Your task to perform on an android device: turn on the 12-hour format for clock Image 0: 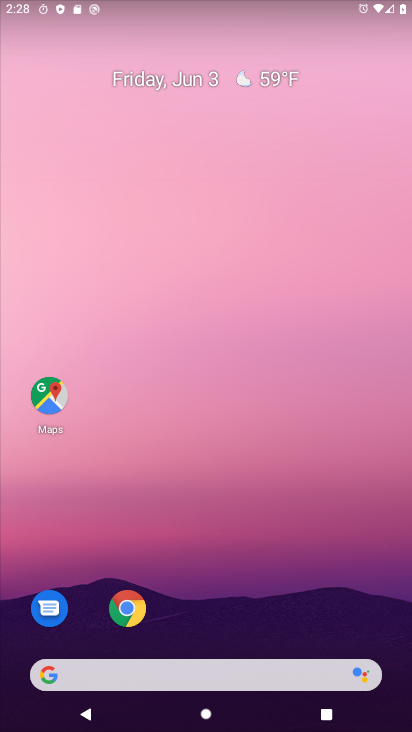
Step 0: drag from (217, 663) to (213, 232)
Your task to perform on an android device: turn on the 12-hour format for clock Image 1: 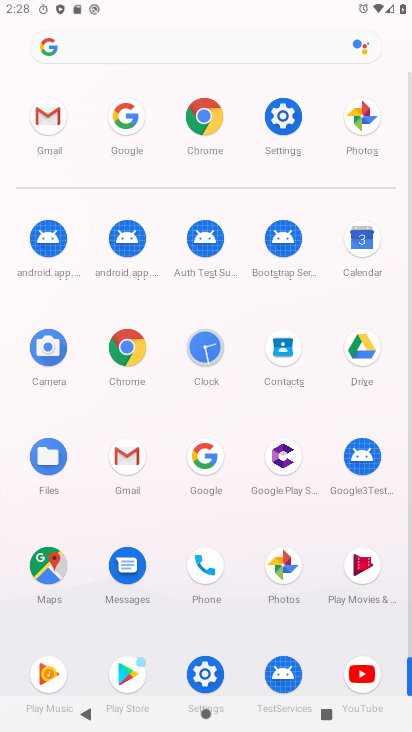
Step 1: click (298, 119)
Your task to perform on an android device: turn on the 12-hour format for clock Image 2: 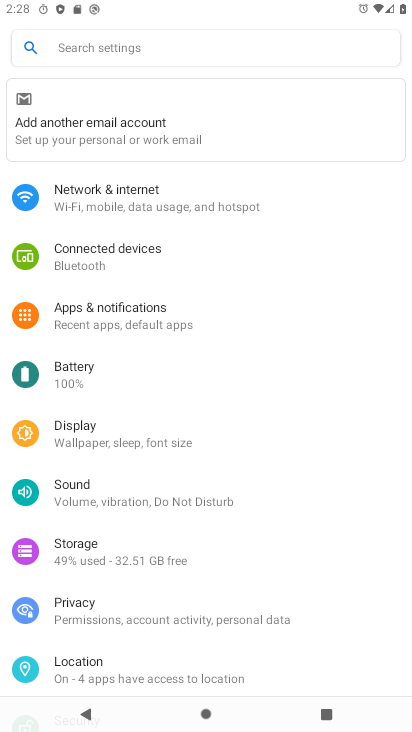
Step 2: drag from (238, 536) to (261, 82)
Your task to perform on an android device: turn on the 12-hour format for clock Image 3: 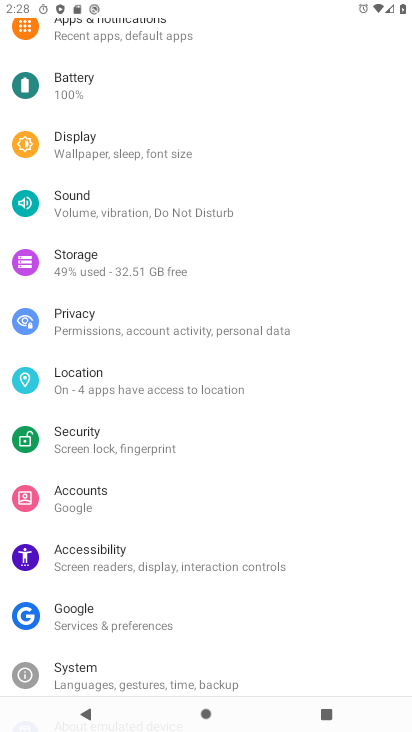
Step 3: click (159, 680)
Your task to perform on an android device: turn on the 12-hour format for clock Image 4: 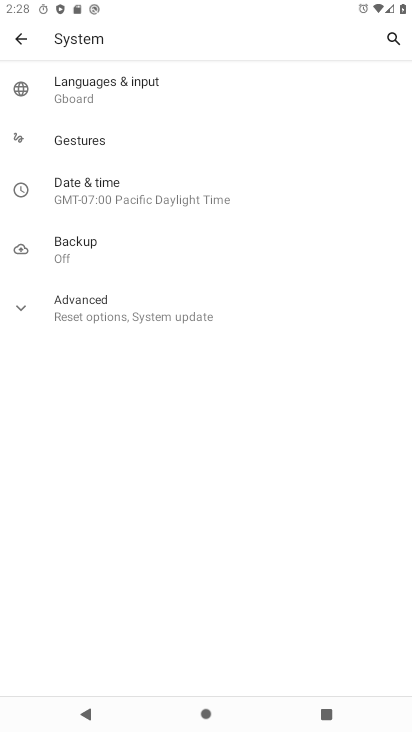
Step 4: click (99, 183)
Your task to perform on an android device: turn on the 12-hour format for clock Image 5: 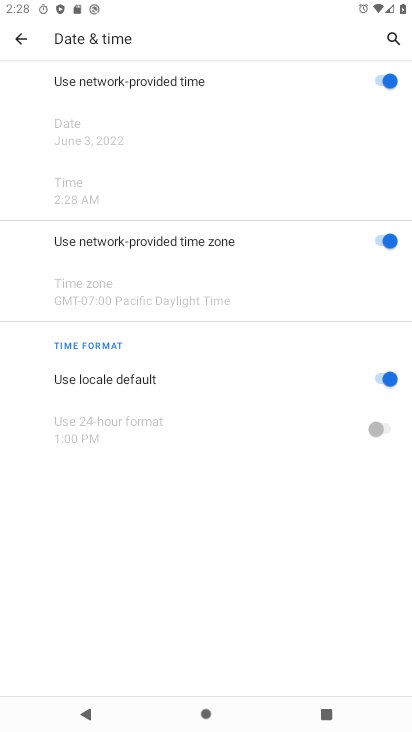
Step 5: task complete